Your task to perform on an android device: change the clock display to show seconds Image 0: 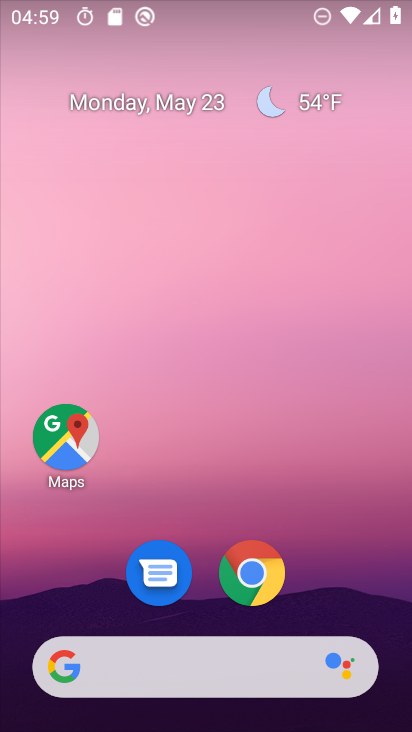
Step 0: drag from (350, 591) to (298, 80)
Your task to perform on an android device: change the clock display to show seconds Image 1: 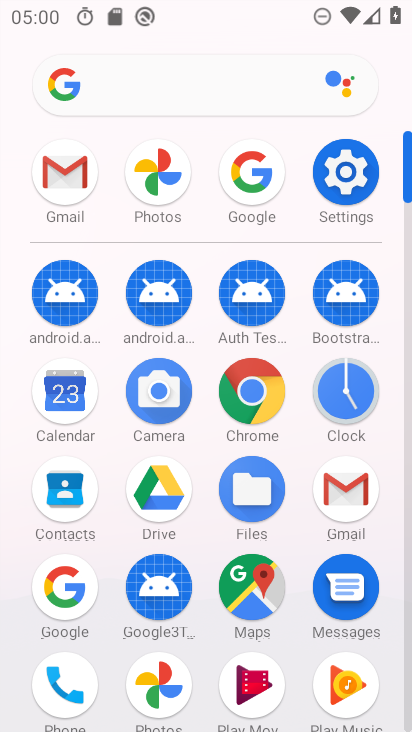
Step 1: click (354, 386)
Your task to perform on an android device: change the clock display to show seconds Image 2: 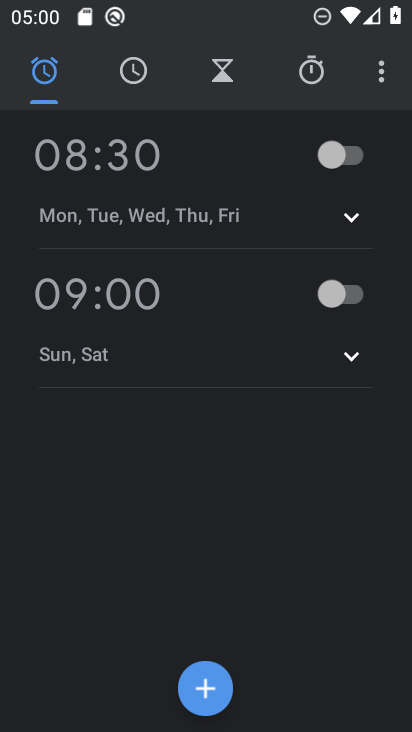
Step 2: click (389, 79)
Your task to perform on an android device: change the clock display to show seconds Image 3: 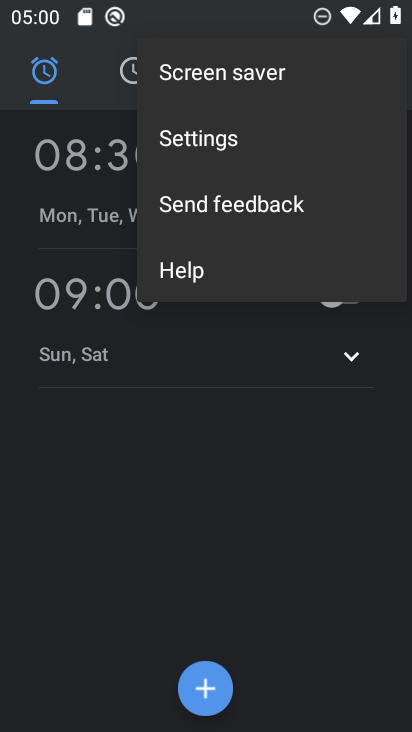
Step 3: click (215, 139)
Your task to perform on an android device: change the clock display to show seconds Image 4: 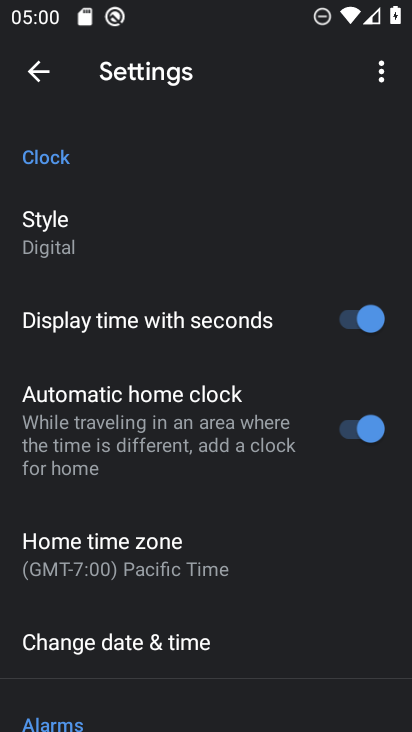
Step 4: click (352, 322)
Your task to perform on an android device: change the clock display to show seconds Image 5: 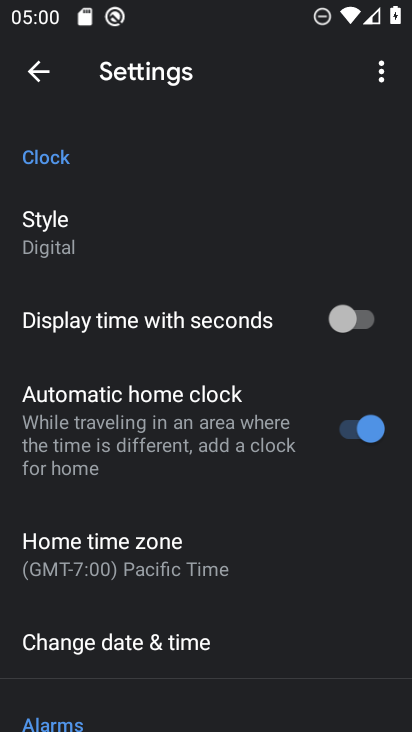
Step 5: task complete